Your task to perform on an android device: open app "Move to iOS" (install if not already installed) and go to login screen Image 0: 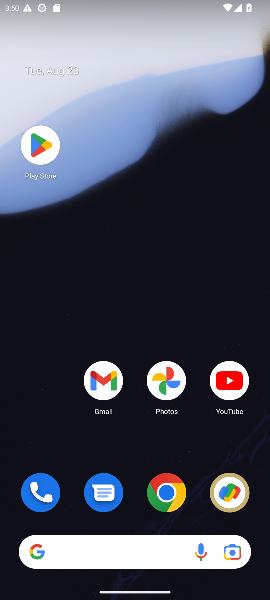
Step 0: click (36, 172)
Your task to perform on an android device: open app "Move to iOS" (install if not already installed) and go to login screen Image 1: 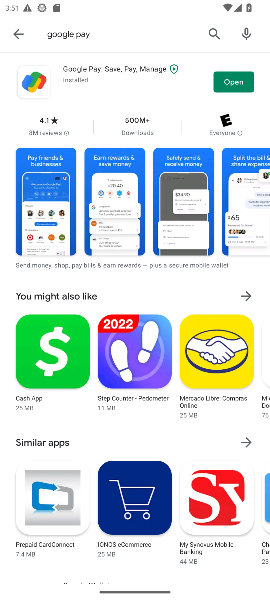
Step 1: click (226, 38)
Your task to perform on an android device: open app "Move to iOS" (install if not already installed) and go to login screen Image 2: 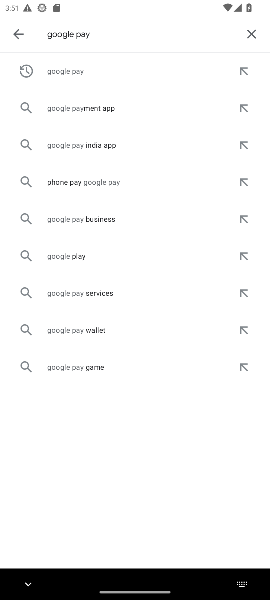
Step 2: click (251, 37)
Your task to perform on an android device: open app "Move to iOS" (install if not already installed) and go to login screen Image 3: 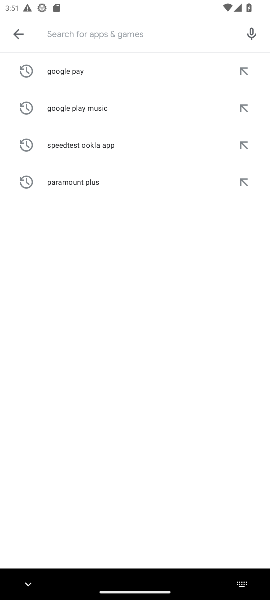
Step 3: type "move iso"
Your task to perform on an android device: open app "Move to iOS" (install if not already installed) and go to login screen Image 4: 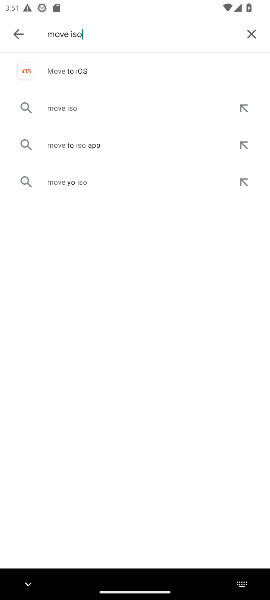
Step 4: click (144, 77)
Your task to perform on an android device: open app "Move to iOS" (install if not already installed) and go to login screen Image 5: 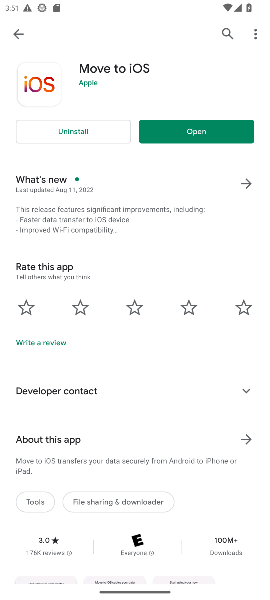
Step 5: click (162, 118)
Your task to perform on an android device: open app "Move to iOS" (install if not already installed) and go to login screen Image 6: 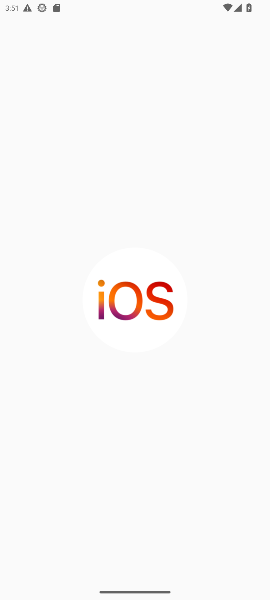
Step 6: task complete